Your task to perform on an android device: clear all cookies in the chrome app Image 0: 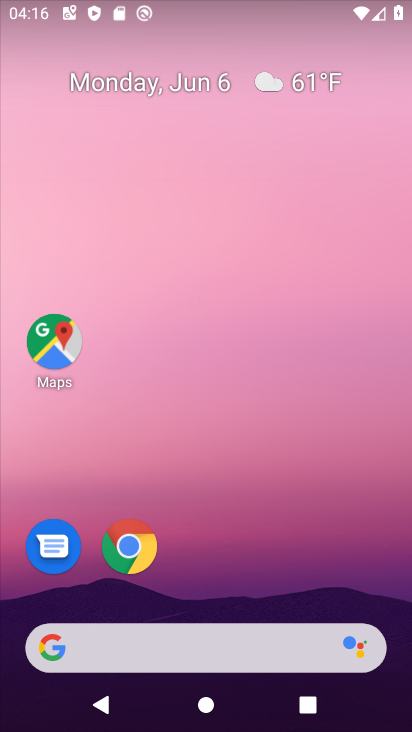
Step 0: press home button
Your task to perform on an android device: clear all cookies in the chrome app Image 1: 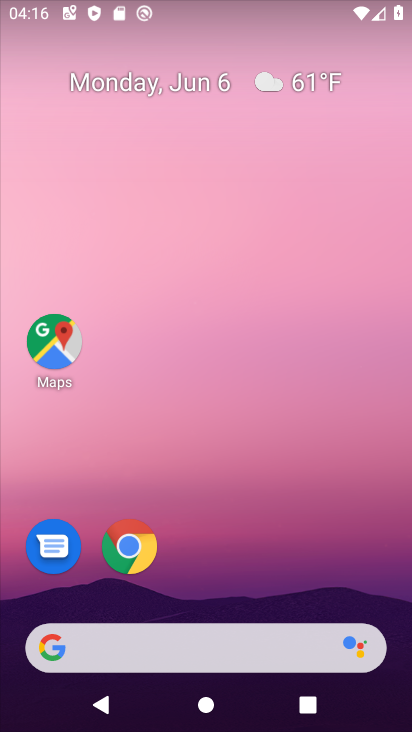
Step 1: click (129, 543)
Your task to perform on an android device: clear all cookies in the chrome app Image 2: 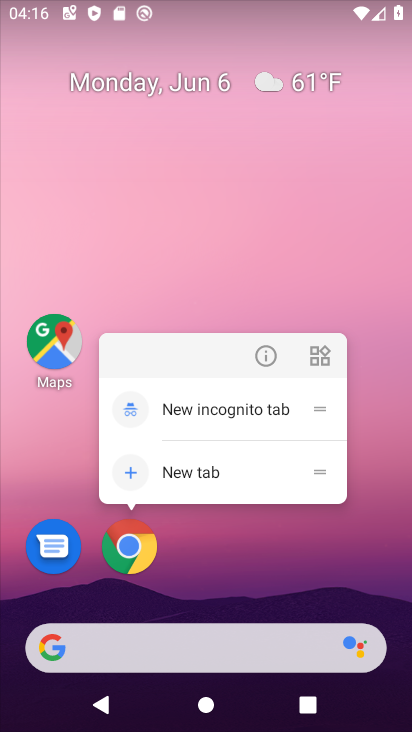
Step 2: click (112, 554)
Your task to perform on an android device: clear all cookies in the chrome app Image 3: 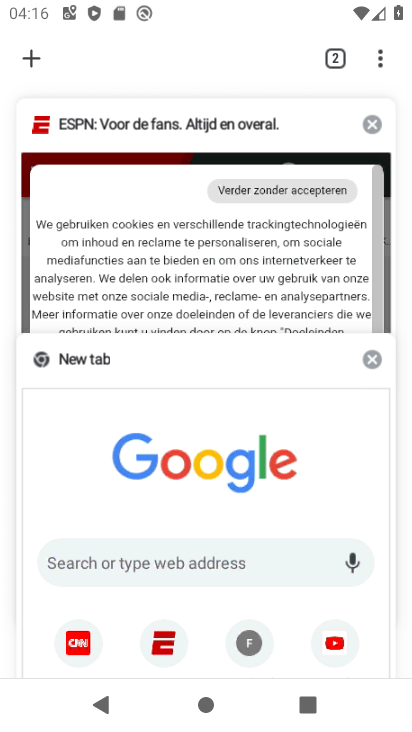
Step 3: drag from (388, 59) to (178, 219)
Your task to perform on an android device: clear all cookies in the chrome app Image 4: 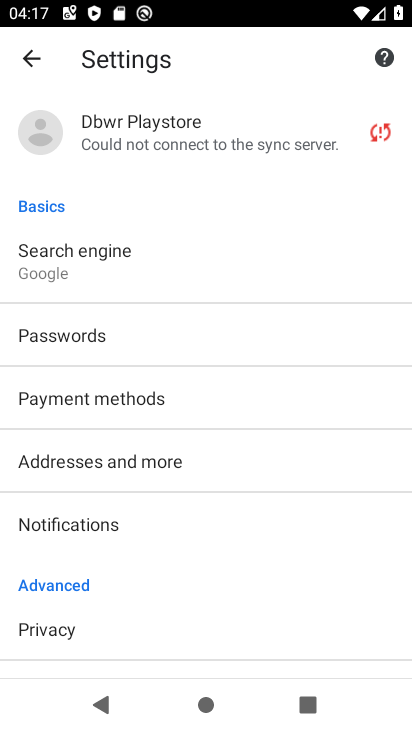
Step 4: drag from (184, 575) to (191, 287)
Your task to perform on an android device: clear all cookies in the chrome app Image 5: 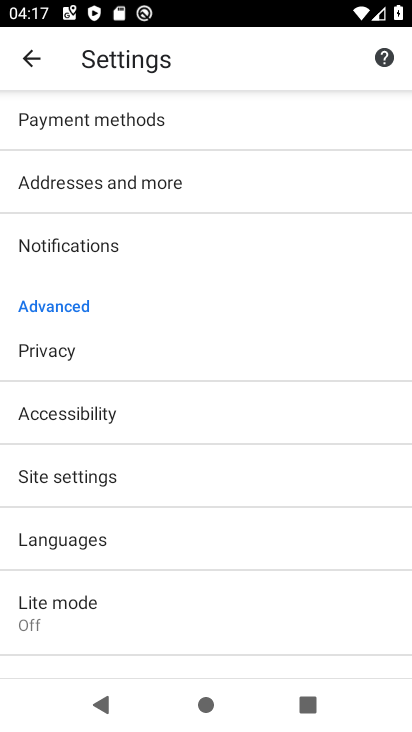
Step 5: click (60, 350)
Your task to perform on an android device: clear all cookies in the chrome app Image 6: 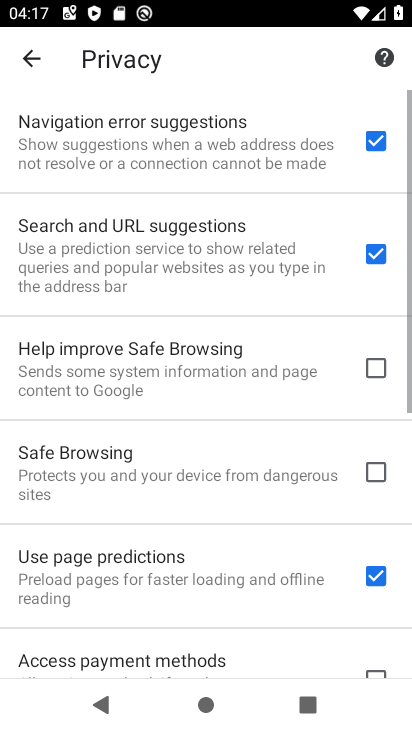
Step 6: drag from (247, 599) to (215, 4)
Your task to perform on an android device: clear all cookies in the chrome app Image 7: 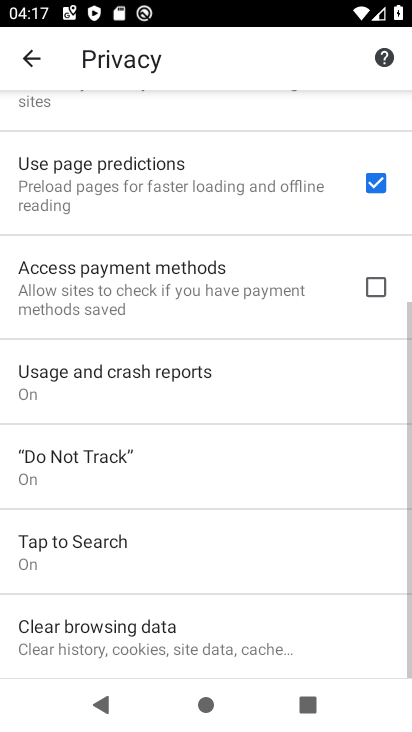
Step 7: click (126, 643)
Your task to perform on an android device: clear all cookies in the chrome app Image 8: 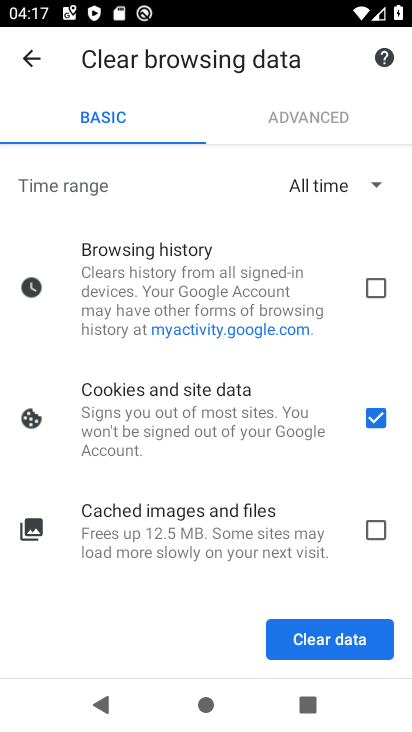
Step 8: click (317, 649)
Your task to perform on an android device: clear all cookies in the chrome app Image 9: 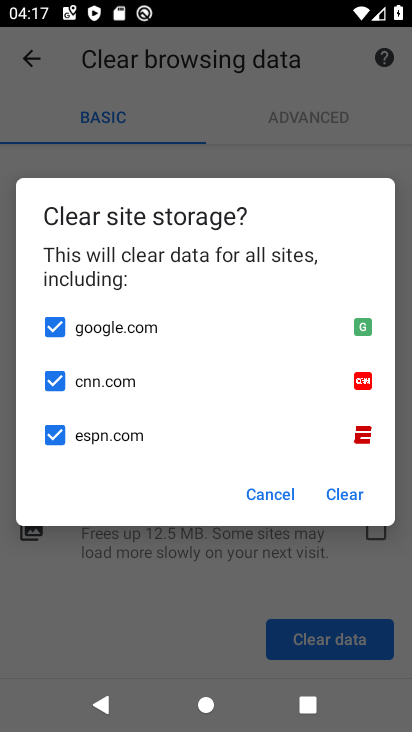
Step 9: click (360, 497)
Your task to perform on an android device: clear all cookies in the chrome app Image 10: 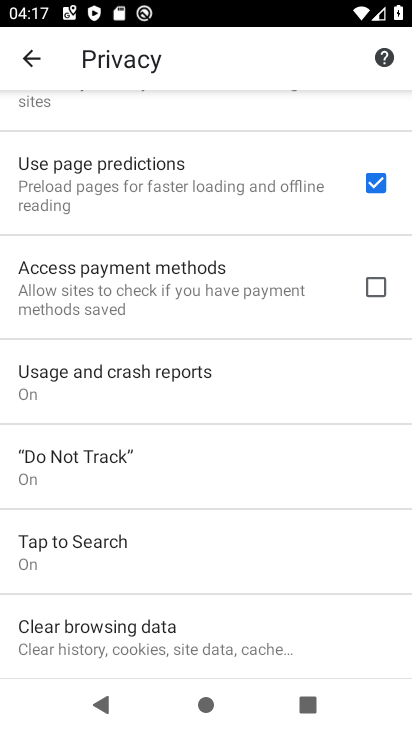
Step 10: task complete